Your task to perform on an android device: Go to location settings Image 0: 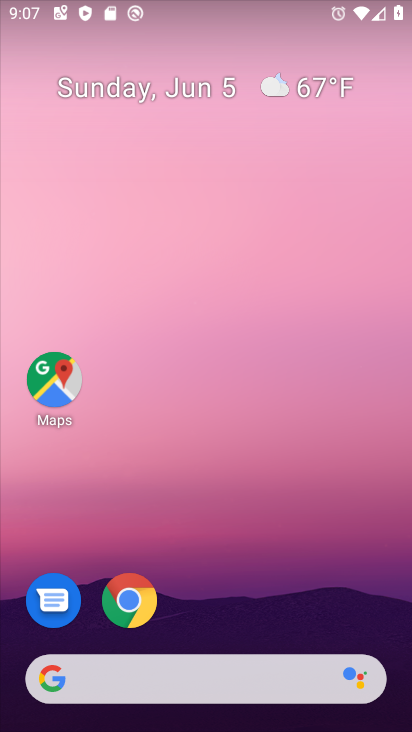
Step 0: click (367, 599)
Your task to perform on an android device: Go to location settings Image 1: 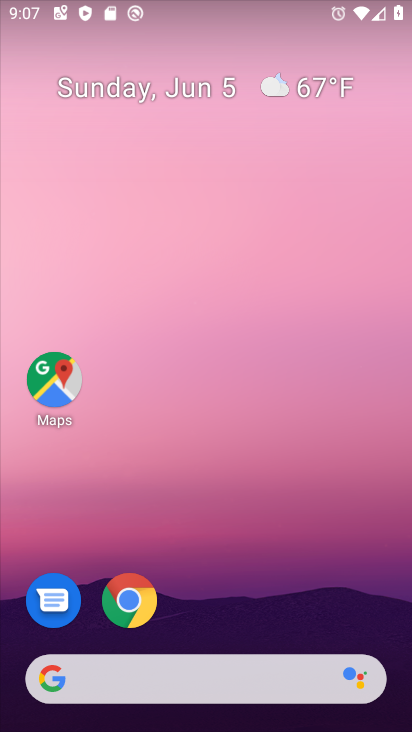
Step 1: click (311, 100)
Your task to perform on an android device: Go to location settings Image 2: 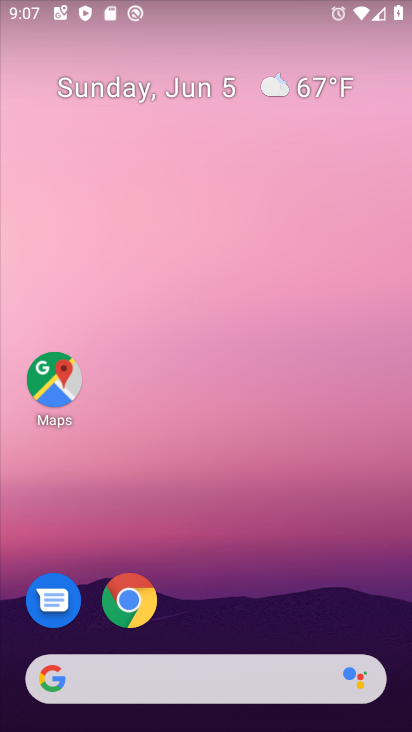
Step 2: drag from (345, 617) to (260, 55)
Your task to perform on an android device: Go to location settings Image 3: 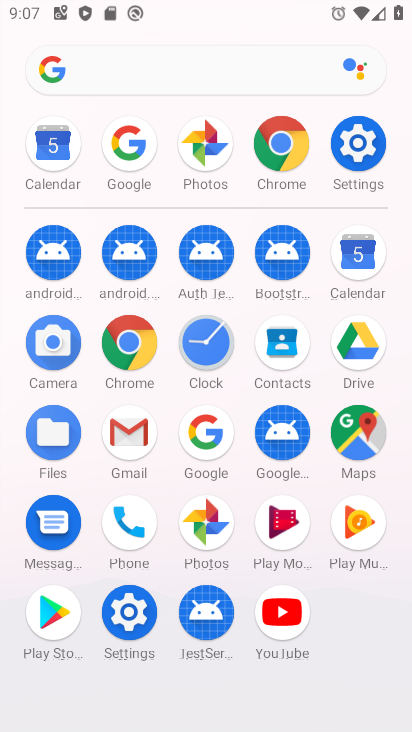
Step 3: click (151, 613)
Your task to perform on an android device: Go to location settings Image 4: 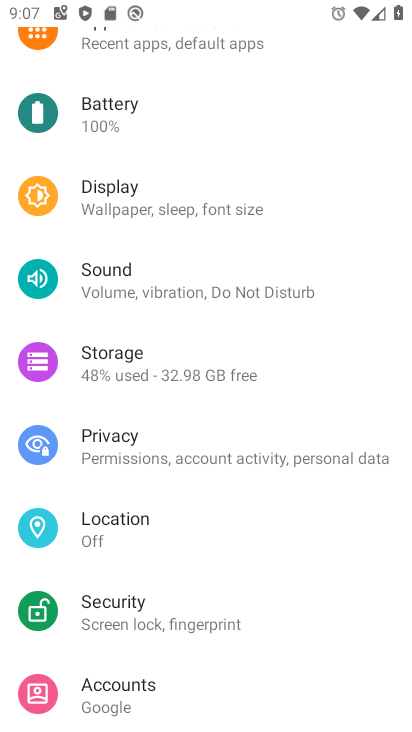
Step 4: click (161, 537)
Your task to perform on an android device: Go to location settings Image 5: 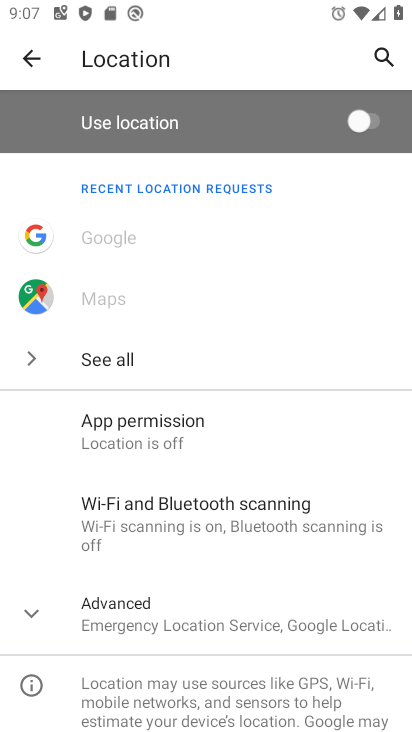
Step 5: task complete